Your task to perform on an android device: find snoozed emails in the gmail app Image 0: 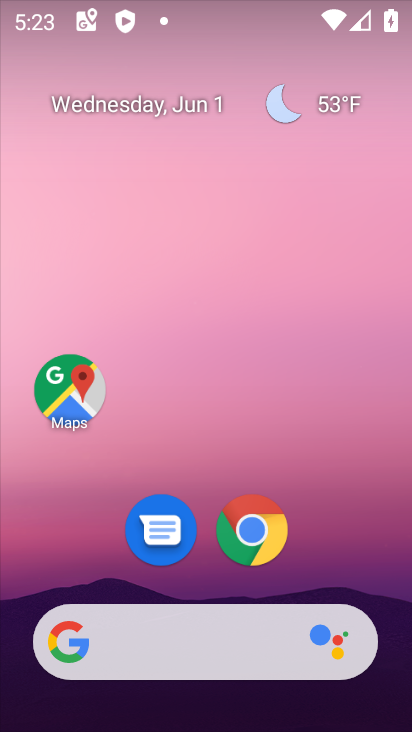
Step 0: drag from (293, 571) to (292, 198)
Your task to perform on an android device: find snoozed emails in the gmail app Image 1: 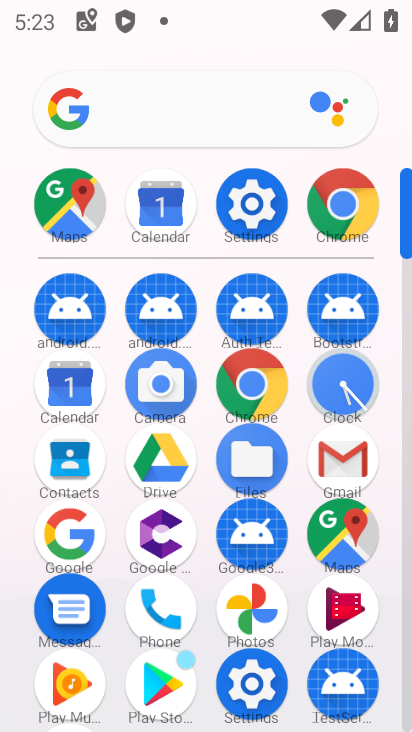
Step 1: click (354, 452)
Your task to perform on an android device: find snoozed emails in the gmail app Image 2: 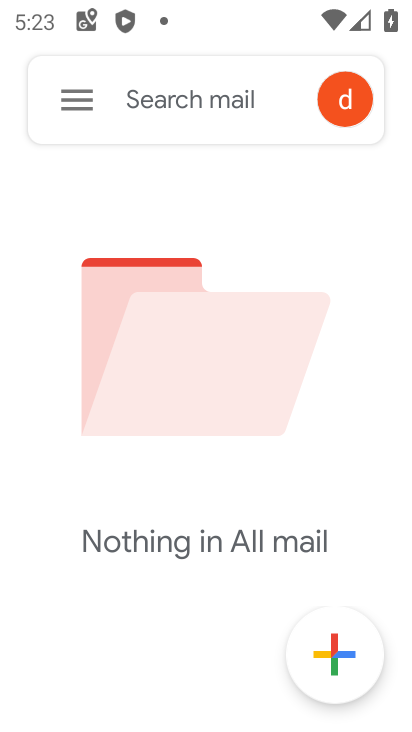
Step 2: click (66, 100)
Your task to perform on an android device: find snoozed emails in the gmail app Image 3: 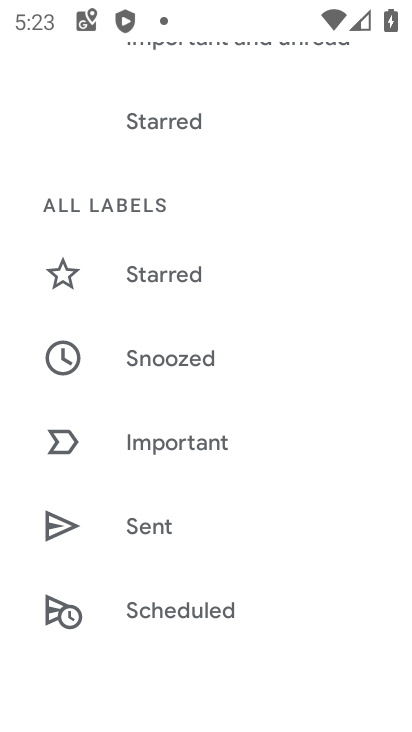
Step 3: click (188, 364)
Your task to perform on an android device: find snoozed emails in the gmail app Image 4: 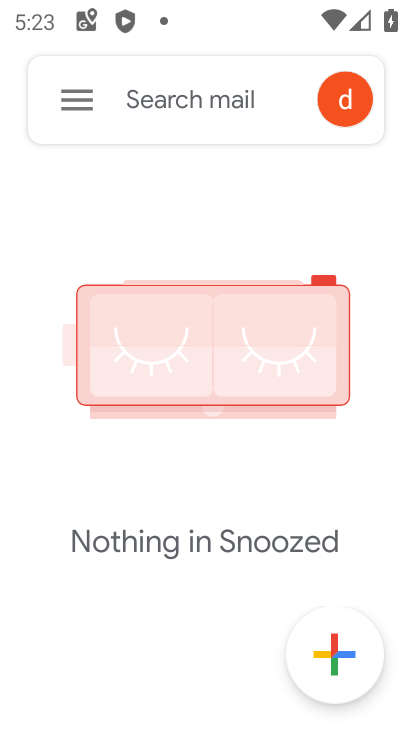
Step 4: task complete